Your task to perform on an android device: star an email in the gmail app Image 0: 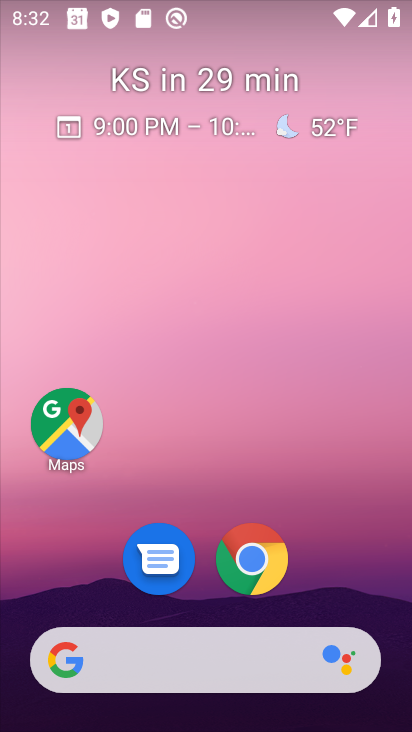
Step 0: drag from (334, 562) to (235, 37)
Your task to perform on an android device: star an email in the gmail app Image 1: 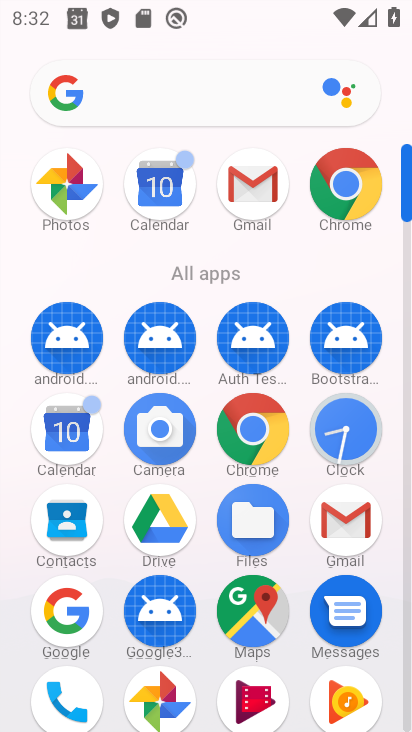
Step 1: drag from (10, 544) to (6, 230)
Your task to perform on an android device: star an email in the gmail app Image 2: 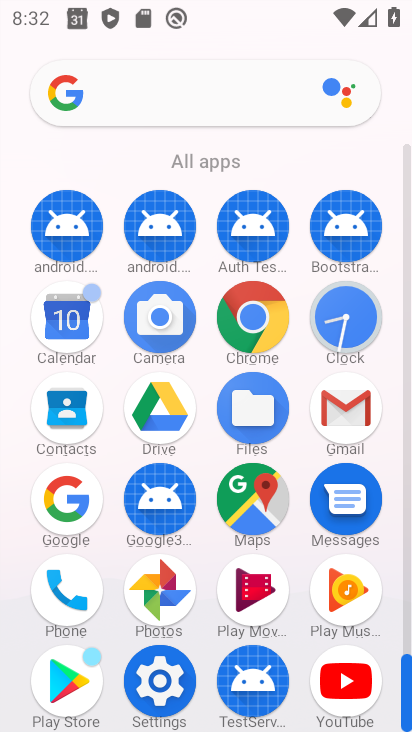
Step 2: click (347, 399)
Your task to perform on an android device: star an email in the gmail app Image 3: 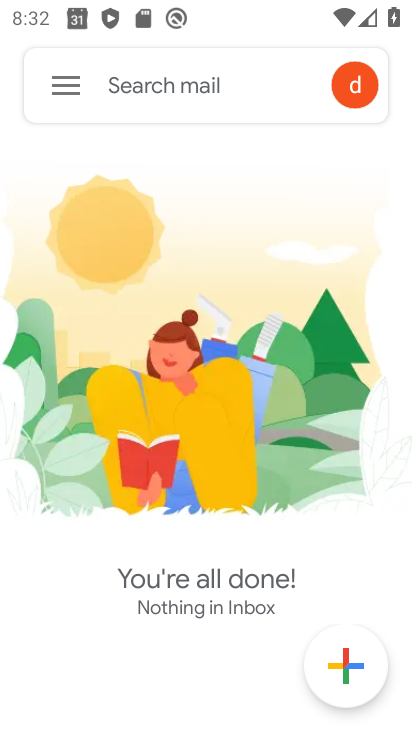
Step 3: click (56, 74)
Your task to perform on an android device: star an email in the gmail app Image 4: 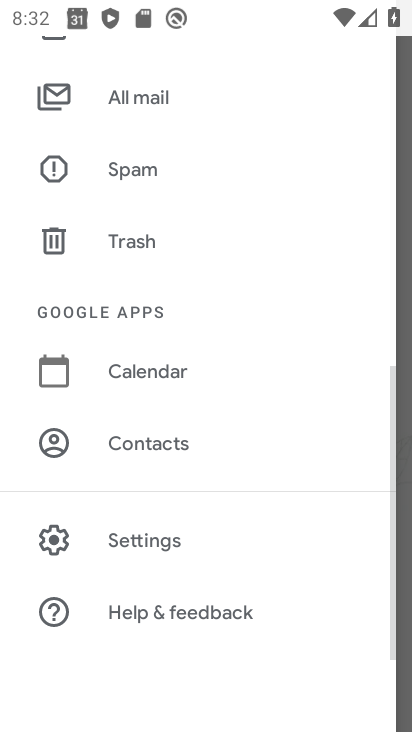
Step 4: click (156, 94)
Your task to perform on an android device: star an email in the gmail app Image 5: 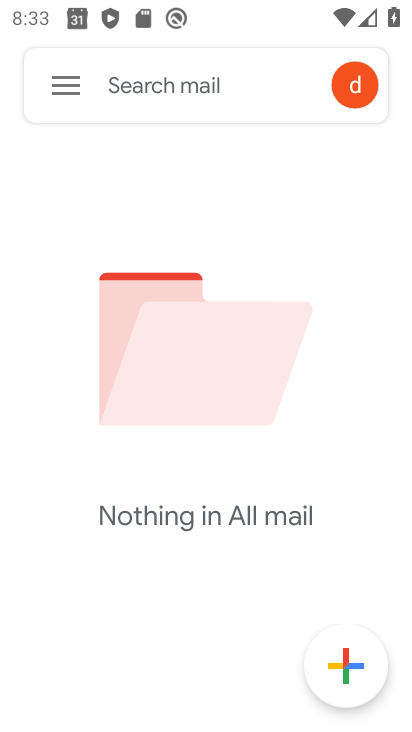
Step 5: click (64, 75)
Your task to perform on an android device: star an email in the gmail app Image 6: 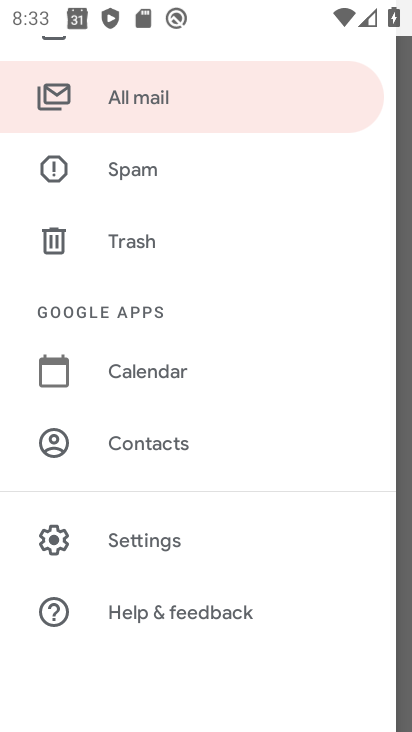
Step 6: click (164, 81)
Your task to perform on an android device: star an email in the gmail app Image 7: 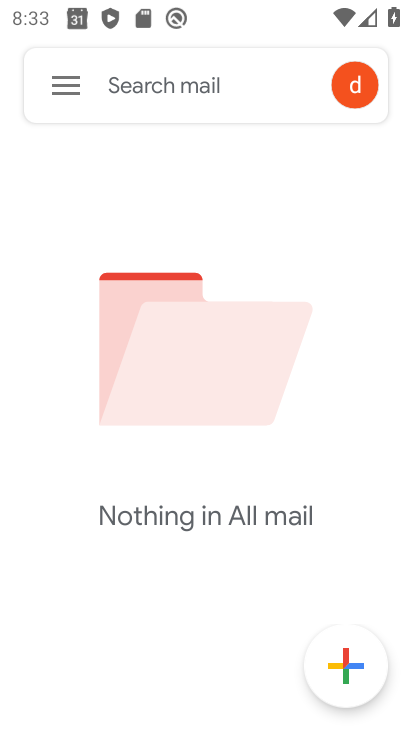
Step 7: click (80, 84)
Your task to perform on an android device: star an email in the gmail app Image 8: 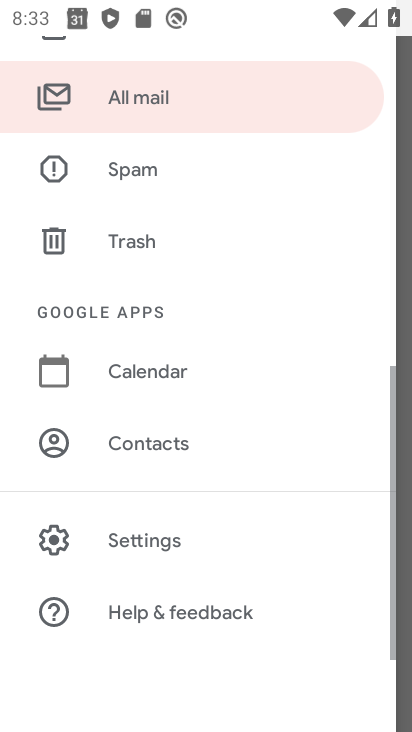
Step 8: click (173, 524)
Your task to perform on an android device: star an email in the gmail app Image 9: 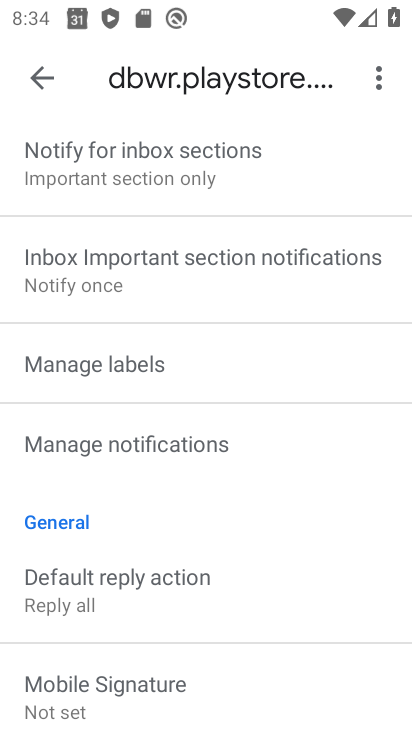
Step 9: click (46, 71)
Your task to perform on an android device: star an email in the gmail app Image 10: 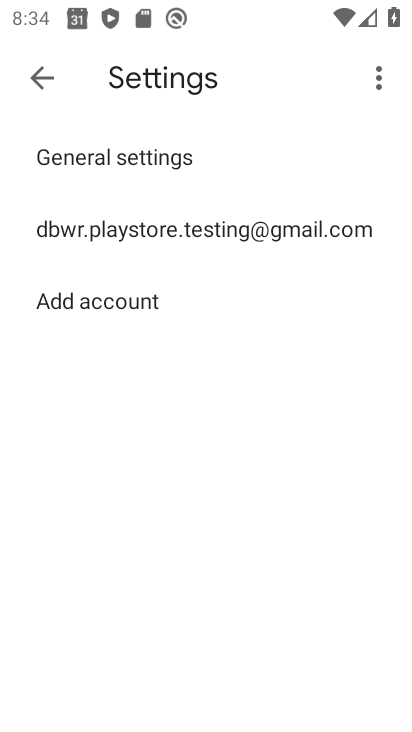
Step 10: click (46, 71)
Your task to perform on an android device: star an email in the gmail app Image 11: 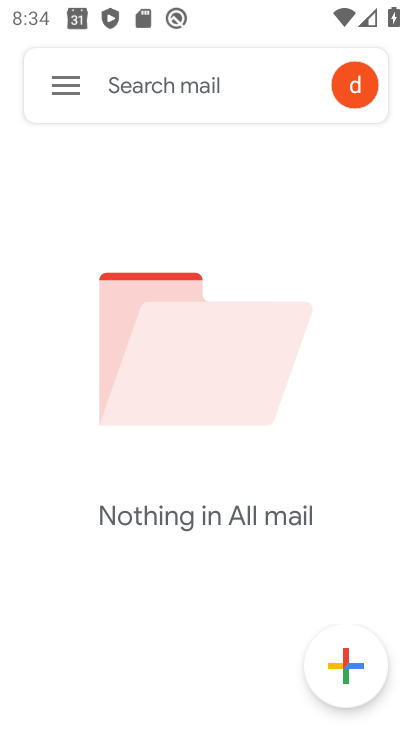
Step 11: task complete